Your task to perform on an android device: Search for the best rated running shoes on Nike.com Image 0: 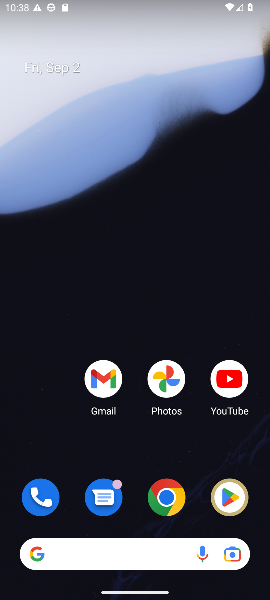
Step 0: click (163, 509)
Your task to perform on an android device: Search for the best rated running shoes on Nike.com Image 1: 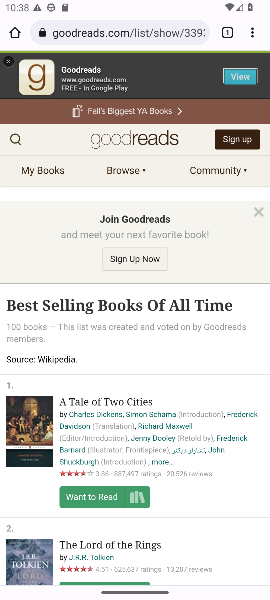
Step 1: click (119, 32)
Your task to perform on an android device: Search for the best rated running shoes on Nike.com Image 2: 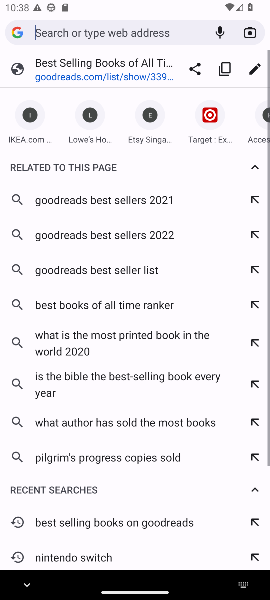
Step 2: type "best rated running shoes on Nike.com"
Your task to perform on an android device: Search for the best rated running shoes on Nike.com Image 3: 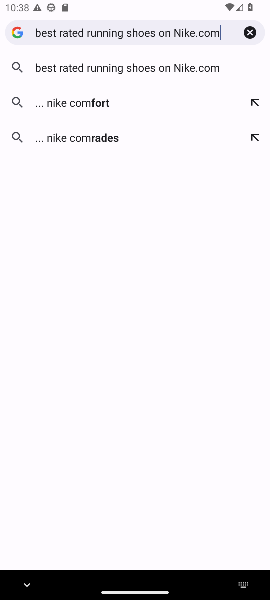
Step 3: click (99, 71)
Your task to perform on an android device: Search for the best rated running shoes on Nike.com Image 4: 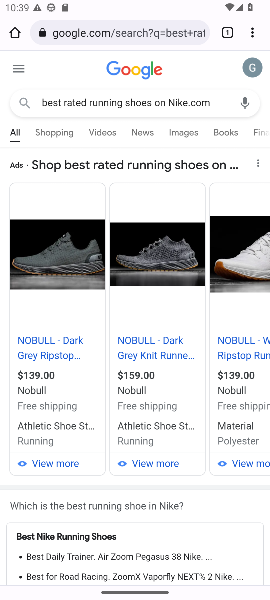
Step 4: drag from (107, 528) to (165, 229)
Your task to perform on an android device: Search for the best rated running shoes on Nike.com Image 5: 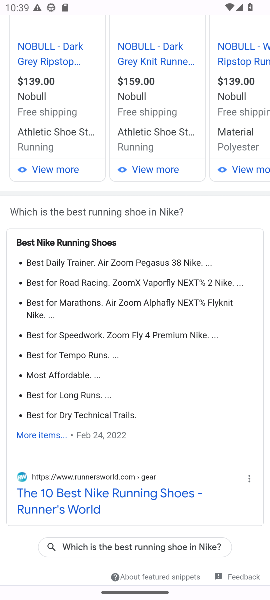
Step 5: drag from (151, 506) to (192, 167)
Your task to perform on an android device: Search for the best rated running shoes on Nike.com Image 6: 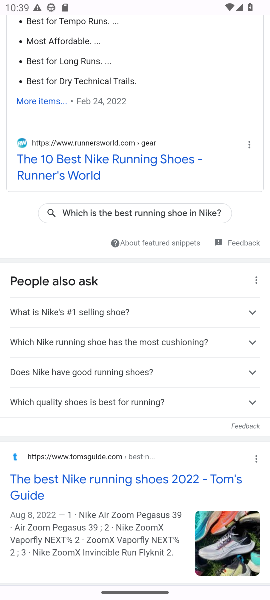
Step 6: drag from (147, 180) to (177, 539)
Your task to perform on an android device: Search for the best rated running shoes on Nike.com Image 7: 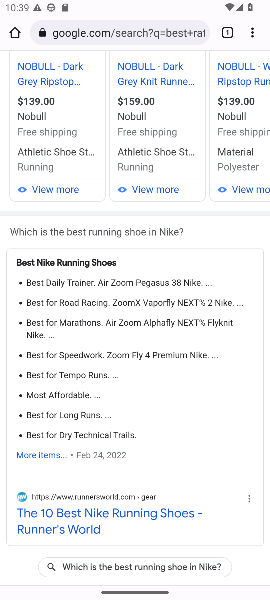
Step 7: drag from (177, 539) to (198, 88)
Your task to perform on an android device: Search for the best rated running shoes on Nike.com Image 8: 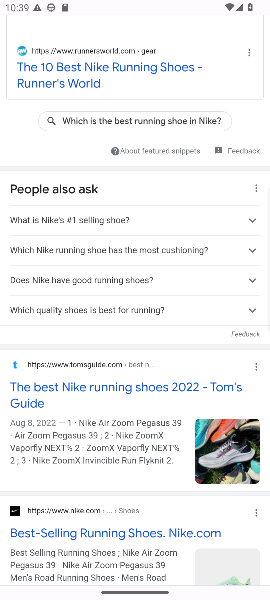
Step 8: drag from (195, 467) to (213, 118)
Your task to perform on an android device: Search for the best rated running shoes on Nike.com Image 9: 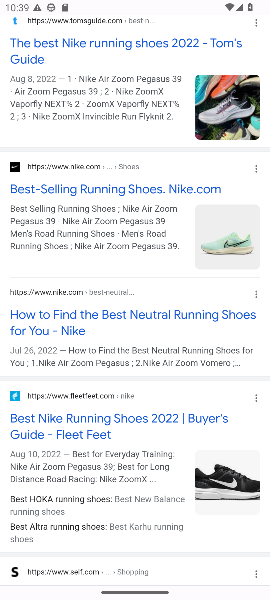
Step 9: drag from (137, 247) to (139, 288)
Your task to perform on an android device: Search for the best rated running shoes on Nike.com Image 10: 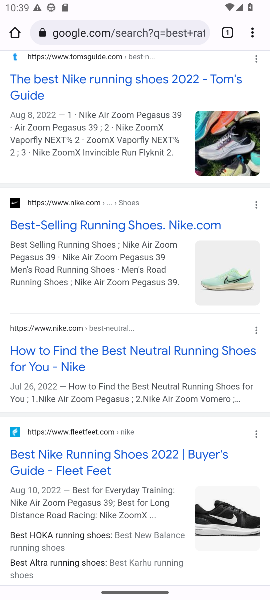
Step 10: click (129, 228)
Your task to perform on an android device: Search for the best rated running shoes on Nike.com Image 11: 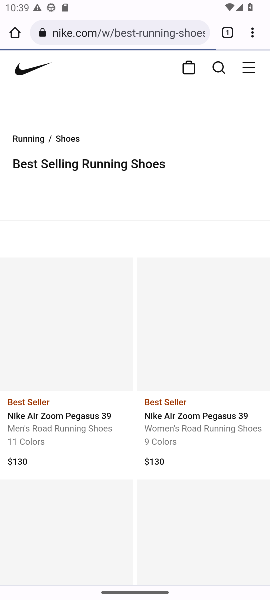
Step 11: task complete